Your task to perform on an android device: toggle priority inbox in the gmail app Image 0: 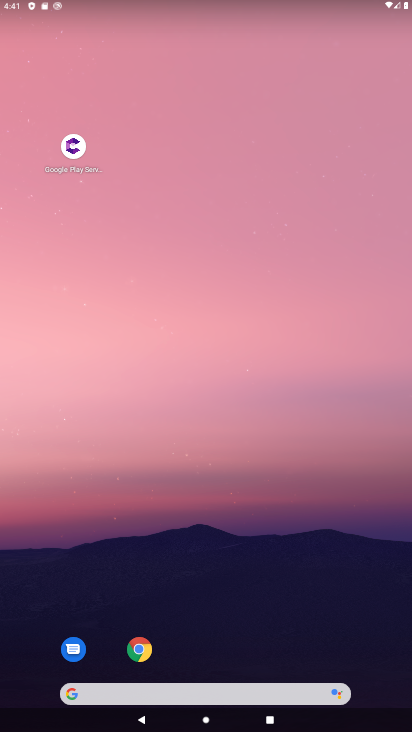
Step 0: press home button
Your task to perform on an android device: toggle priority inbox in the gmail app Image 1: 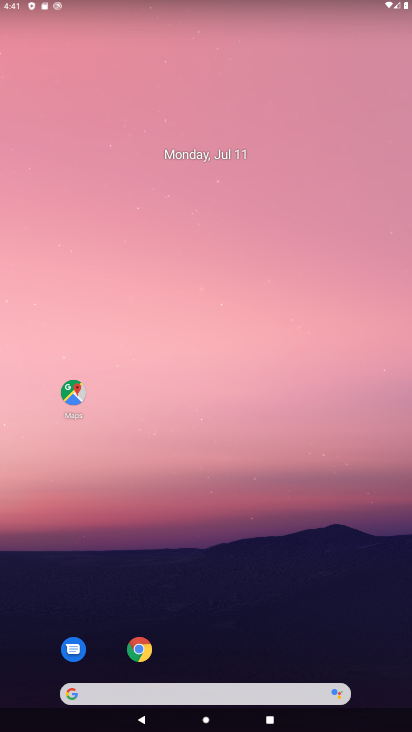
Step 1: drag from (292, 654) to (304, 167)
Your task to perform on an android device: toggle priority inbox in the gmail app Image 2: 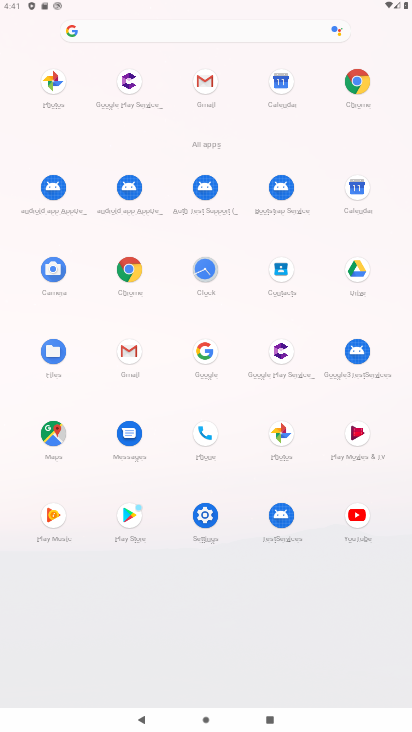
Step 2: click (219, 80)
Your task to perform on an android device: toggle priority inbox in the gmail app Image 3: 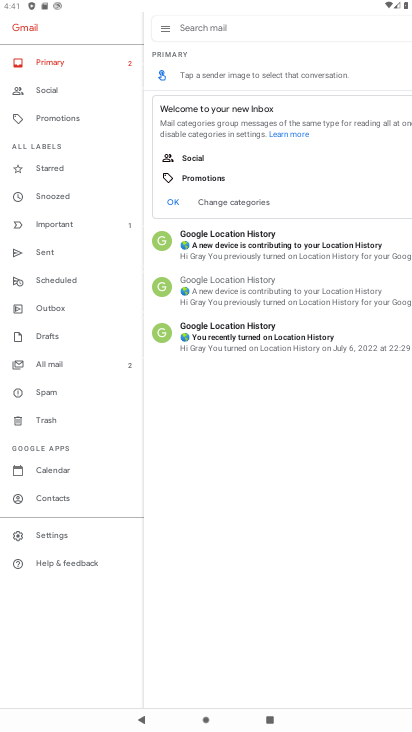
Step 3: click (51, 537)
Your task to perform on an android device: toggle priority inbox in the gmail app Image 4: 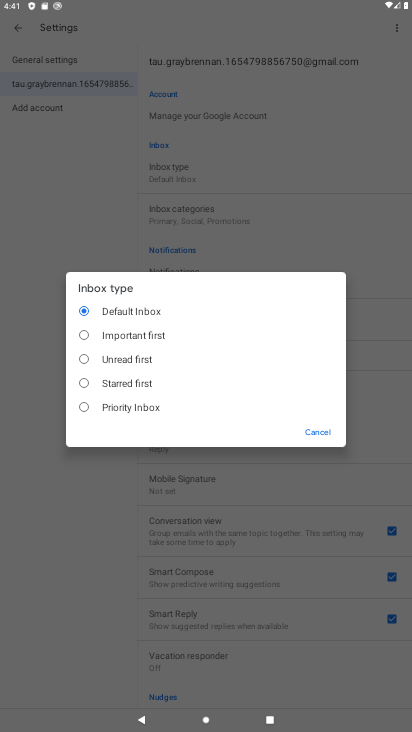
Step 4: click (317, 427)
Your task to perform on an android device: toggle priority inbox in the gmail app Image 5: 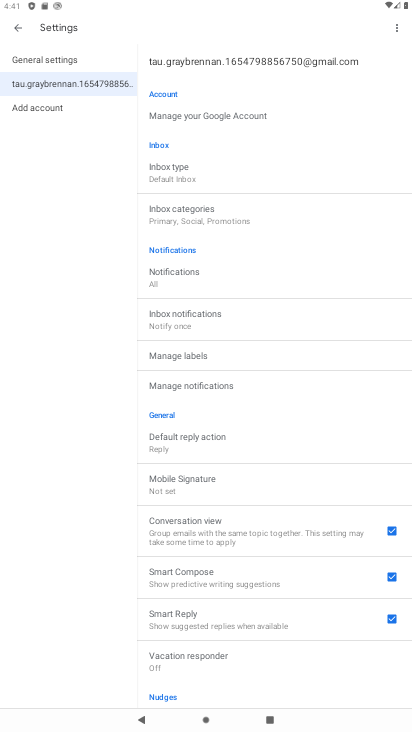
Step 5: click (176, 180)
Your task to perform on an android device: toggle priority inbox in the gmail app Image 6: 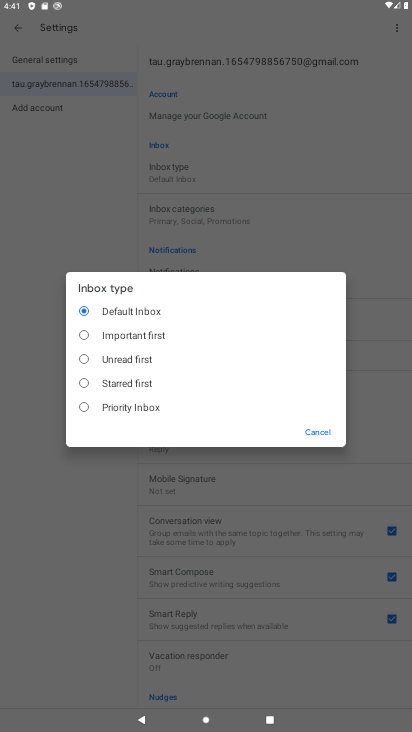
Step 6: click (137, 404)
Your task to perform on an android device: toggle priority inbox in the gmail app Image 7: 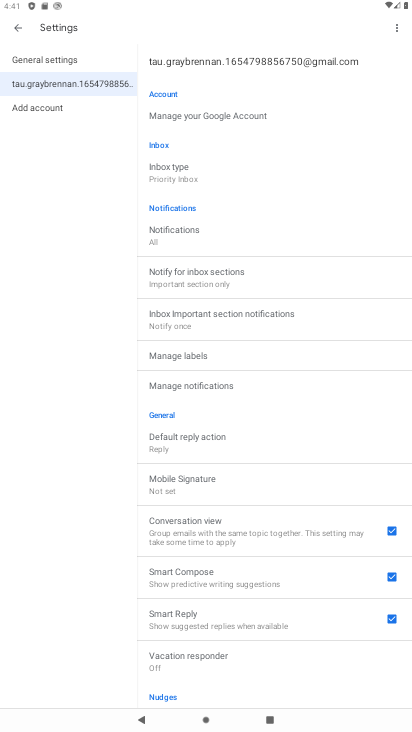
Step 7: task complete